Your task to perform on an android device: toggle notification dots Image 0: 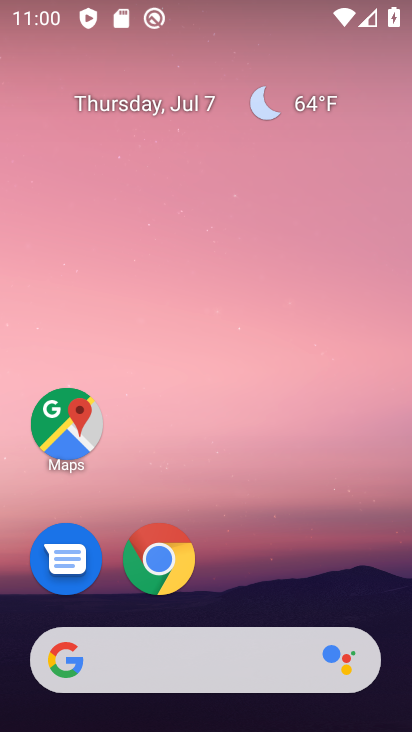
Step 0: drag from (207, 635) to (207, 219)
Your task to perform on an android device: toggle notification dots Image 1: 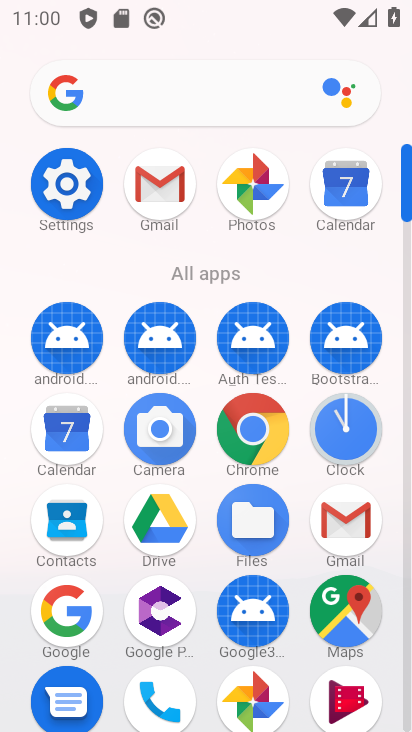
Step 1: click (71, 187)
Your task to perform on an android device: toggle notification dots Image 2: 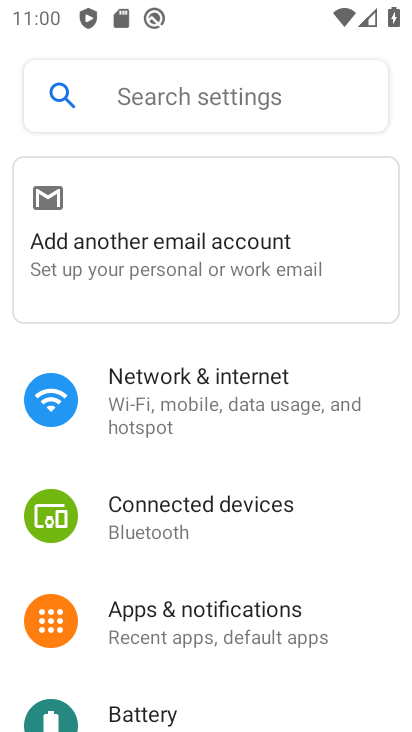
Step 2: click (181, 612)
Your task to perform on an android device: toggle notification dots Image 3: 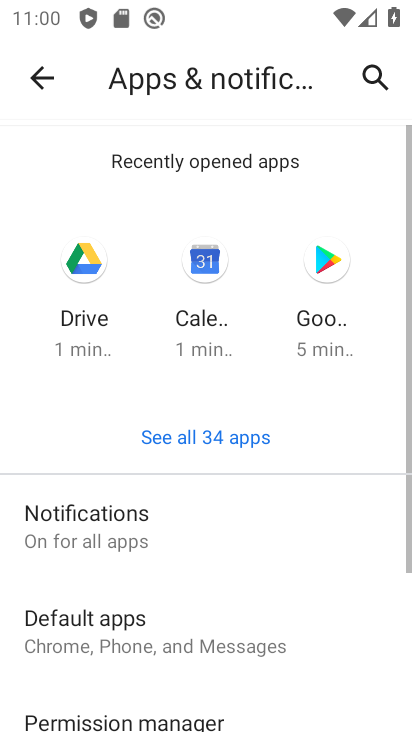
Step 3: drag from (153, 651) to (153, 372)
Your task to perform on an android device: toggle notification dots Image 4: 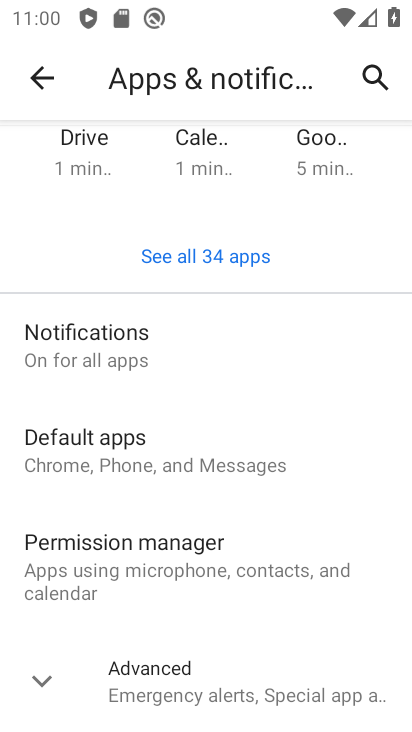
Step 4: click (81, 354)
Your task to perform on an android device: toggle notification dots Image 5: 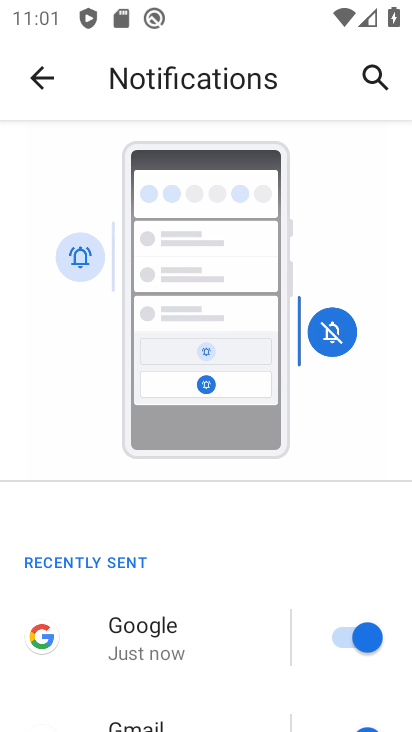
Step 5: drag from (238, 708) to (236, 377)
Your task to perform on an android device: toggle notification dots Image 6: 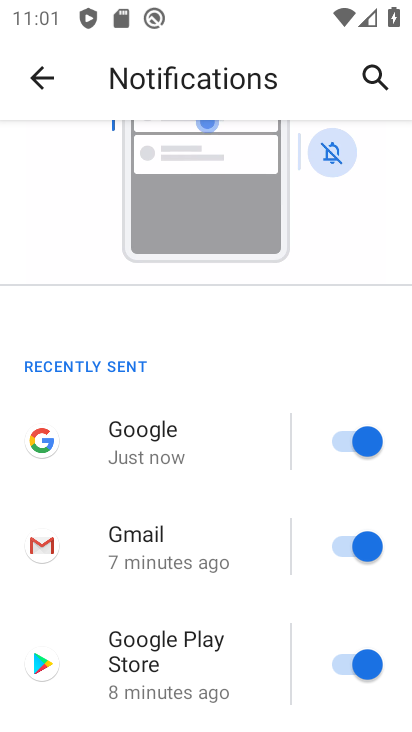
Step 6: drag from (151, 690) to (147, 414)
Your task to perform on an android device: toggle notification dots Image 7: 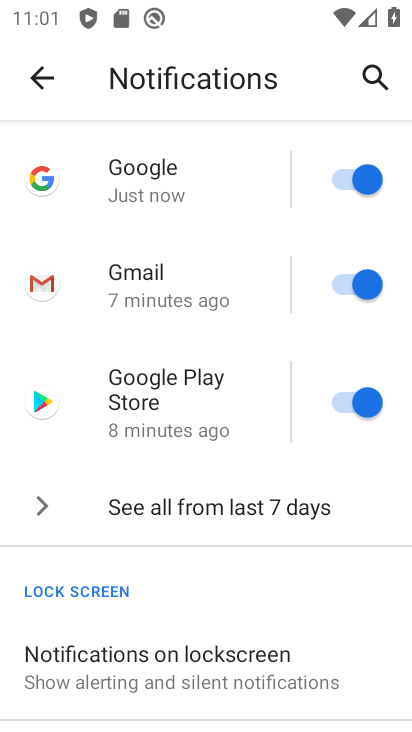
Step 7: drag from (99, 676) to (99, 401)
Your task to perform on an android device: toggle notification dots Image 8: 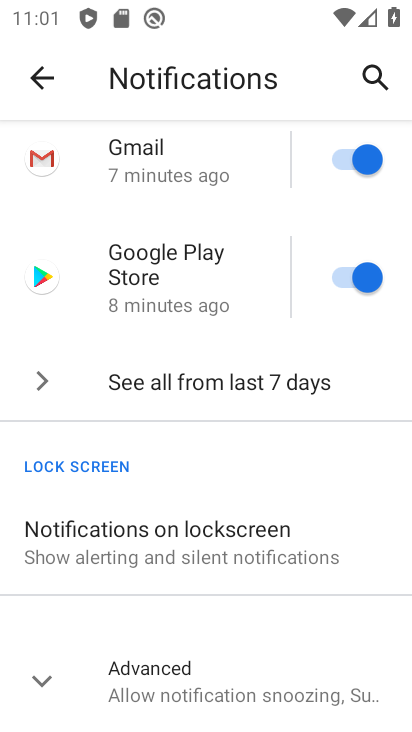
Step 8: click (135, 682)
Your task to perform on an android device: toggle notification dots Image 9: 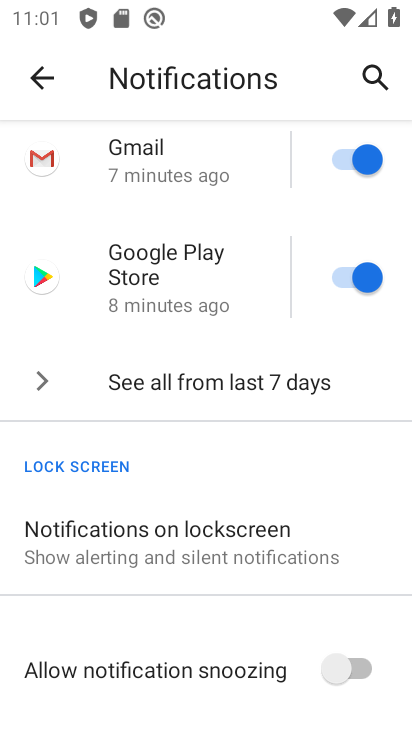
Step 9: drag from (215, 690) to (210, 423)
Your task to perform on an android device: toggle notification dots Image 10: 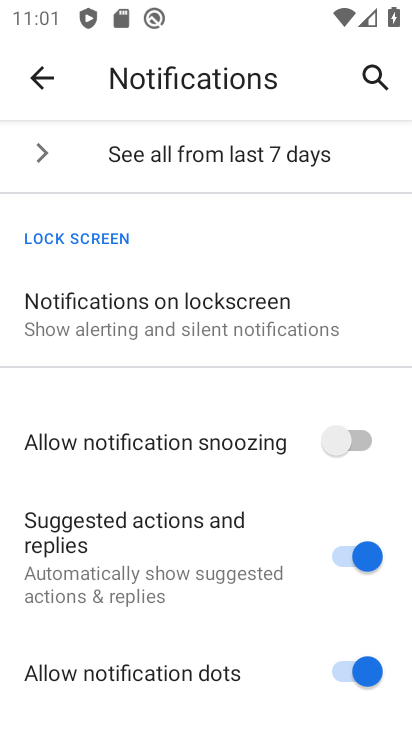
Step 10: click (341, 670)
Your task to perform on an android device: toggle notification dots Image 11: 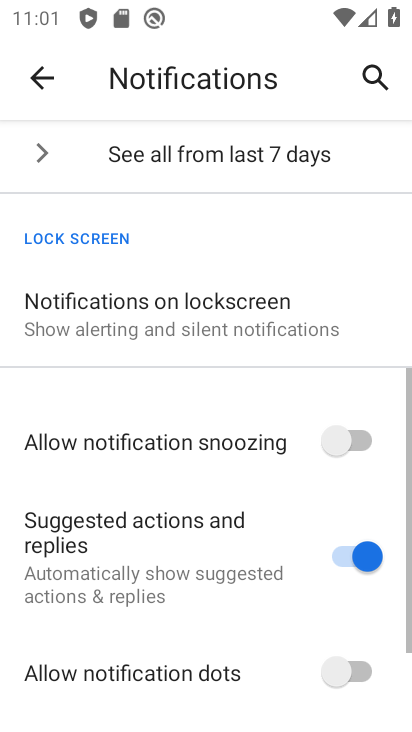
Step 11: task complete